Your task to perform on an android device: toggle notification dots Image 0: 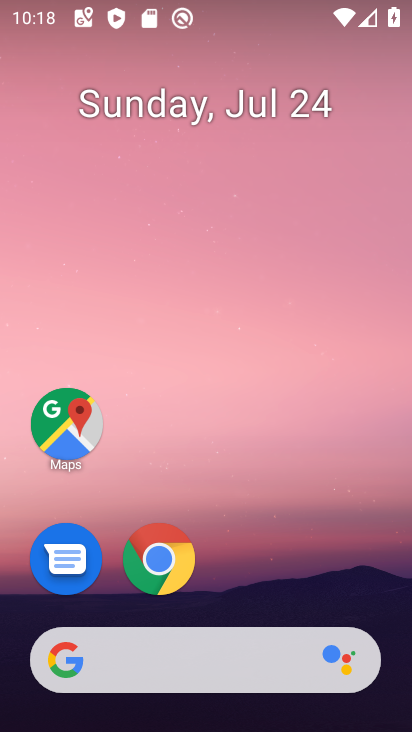
Step 0: drag from (280, 592) to (203, 5)
Your task to perform on an android device: toggle notification dots Image 1: 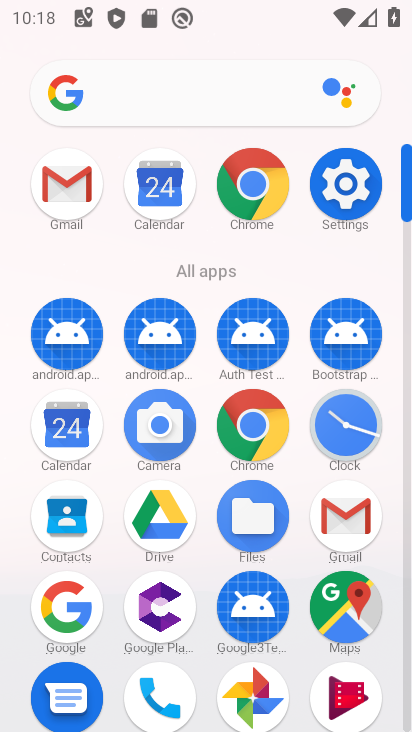
Step 1: click (353, 181)
Your task to perform on an android device: toggle notification dots Image 2: 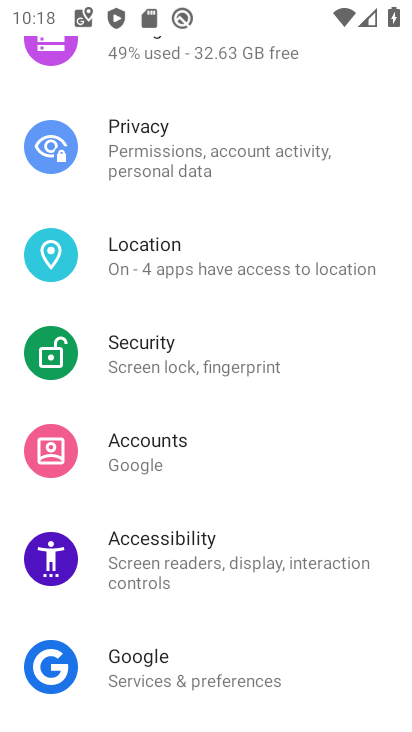
Step 2: drag from (282, 188) to (220, 729)
Your task to perform on an android device: toggle notification dots Image 3: 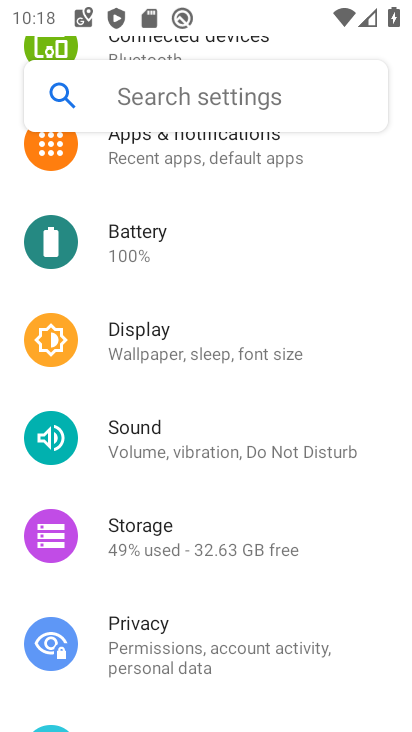
Step 3: click (195, 156)
Your task to perform on an android device: toggle notification dots Image 4: 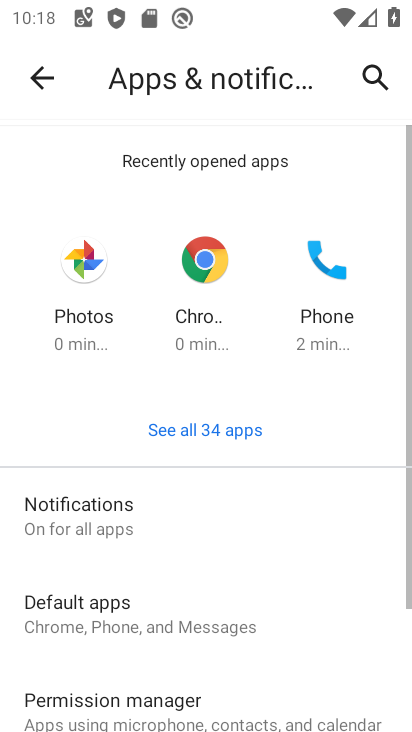
Step 4: click (71, 502)
Your task to perform on an android device: toggle notification dots Image 5: 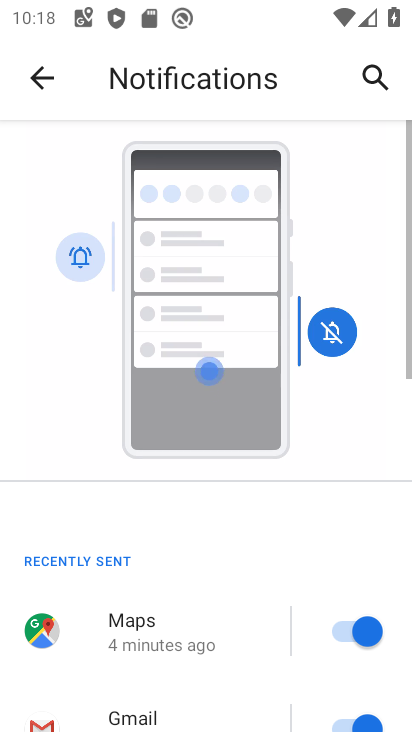
Step 5: drag from (175, 676) to (264, 18)
Your task to perform on an android device: toggle notification dots Image 6: 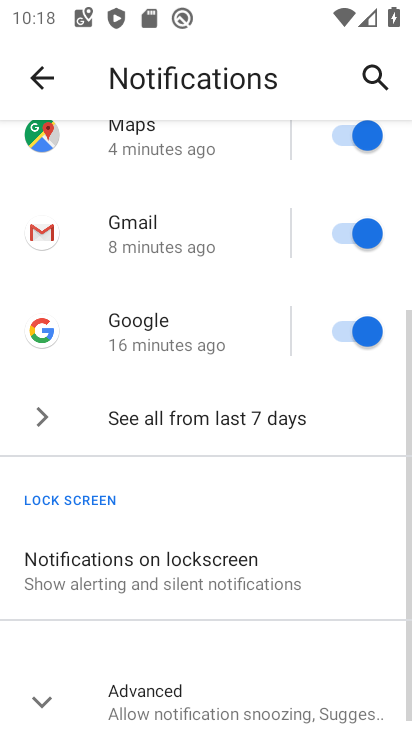
Step 6: click (161, 674)
Your task to perform on an android device: toggle notification dots Image 7: 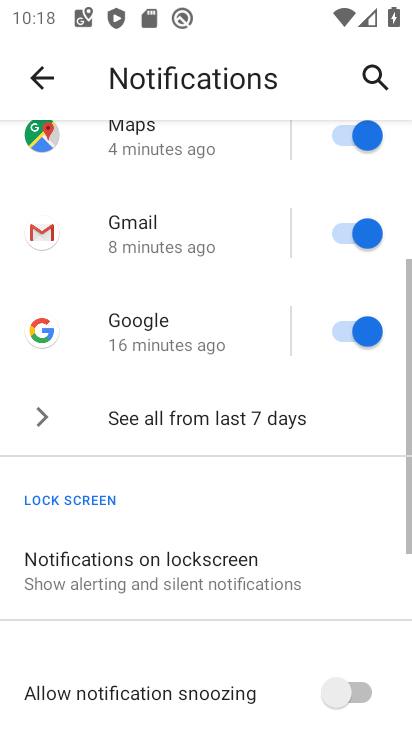
Step 7: task complete